Your task to perform on an android device: turn off location Image 0: 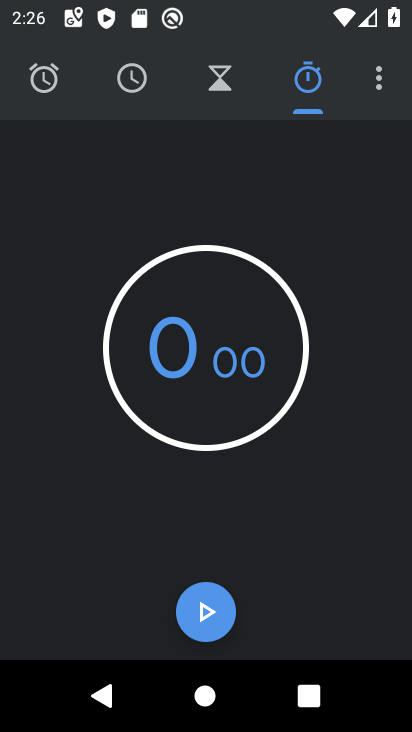
Step 0: press home button
Your task to perform on an android device: turn off location Image 1: 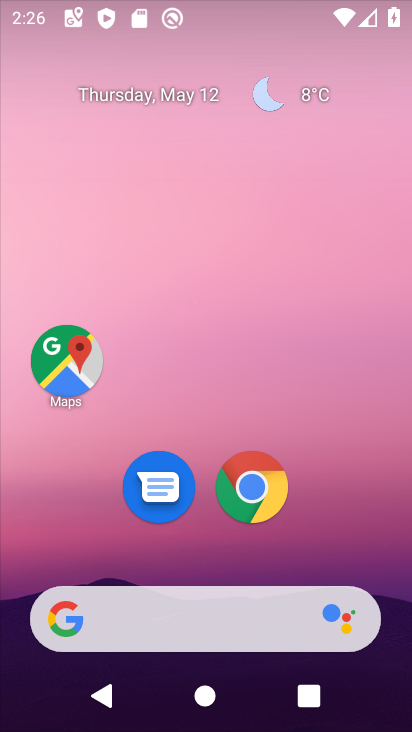
Step 1: drag from (357, 586) to (339, 153)
Your task to perform on an android device: turn off location Image 2: 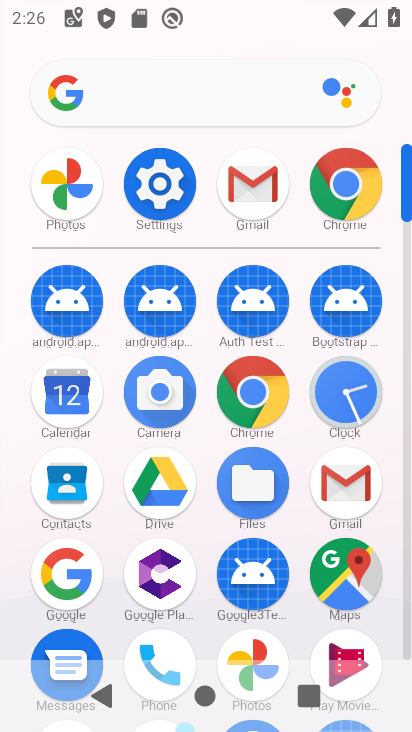
Step 2: click (144, 189)
Your task to perform on an android device: turn off location Image 3: 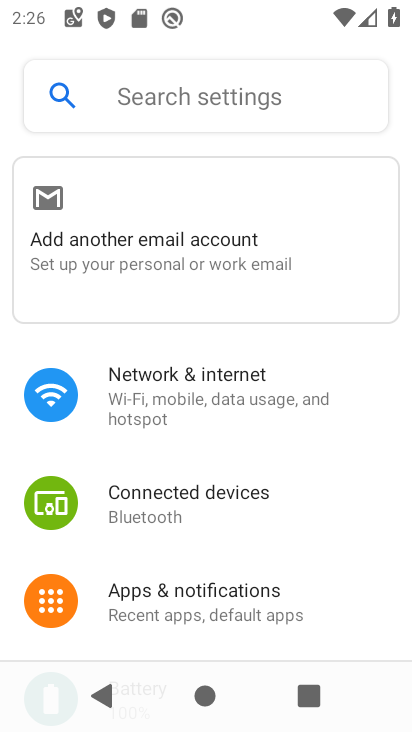
Step 3: drag from (310, 609) to (300, 180)
Your task to perform on an android device: turn off location Image 4: 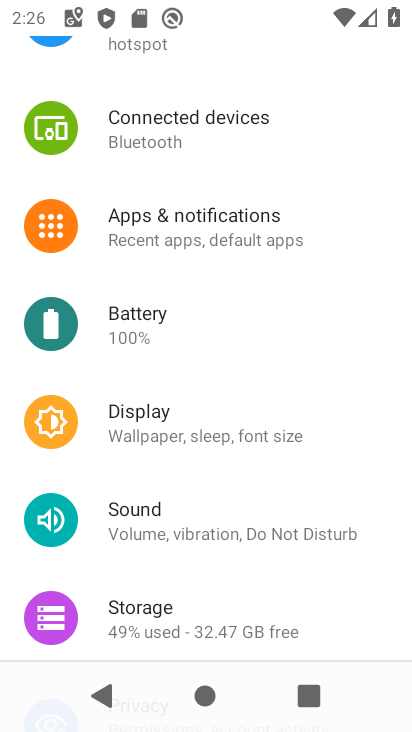
Step 4: drag from (225, 557) to (264, 259)
Your task to perform on an android device: turn off location Image 5: 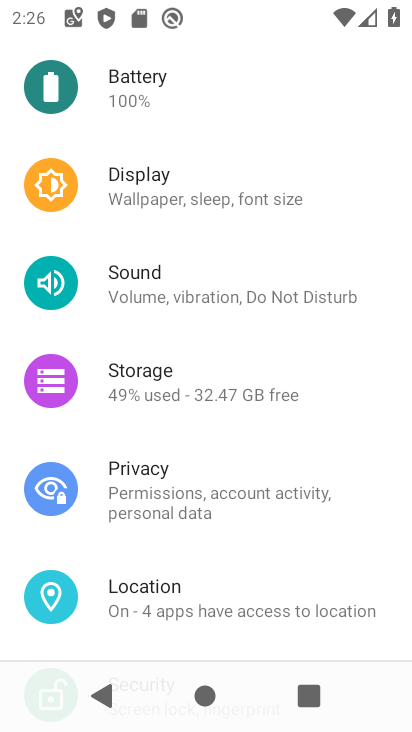
Step 5: click (151, 592)
Your task to perform on an android device: turn off location Image 6: 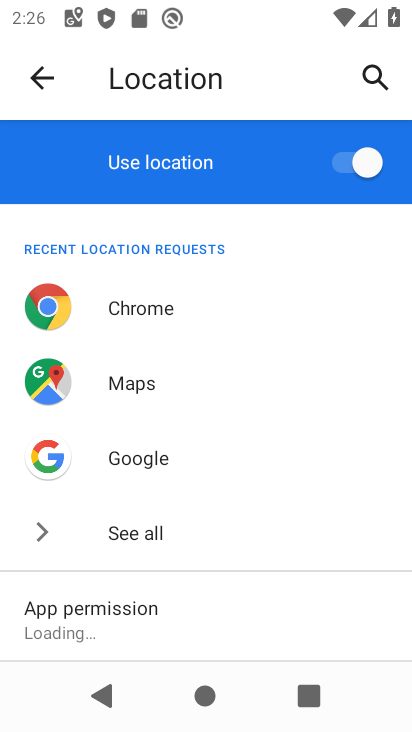
Step 6: click (364, 169)
Your task to perform on an android device: turn off location Image 7: 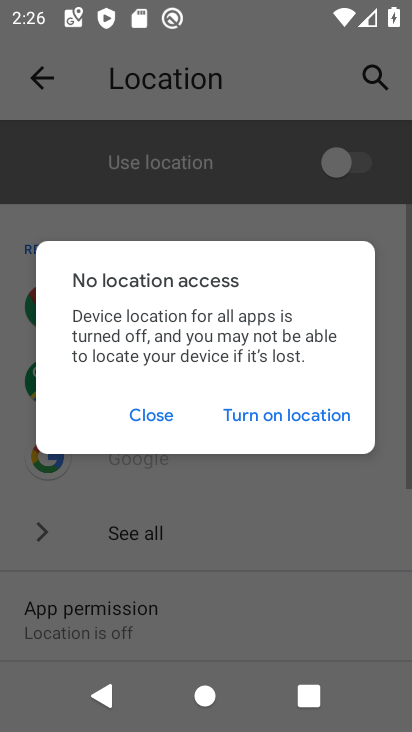
Step 7: task complete